Your task to perform on an android device: check storage Image 0: 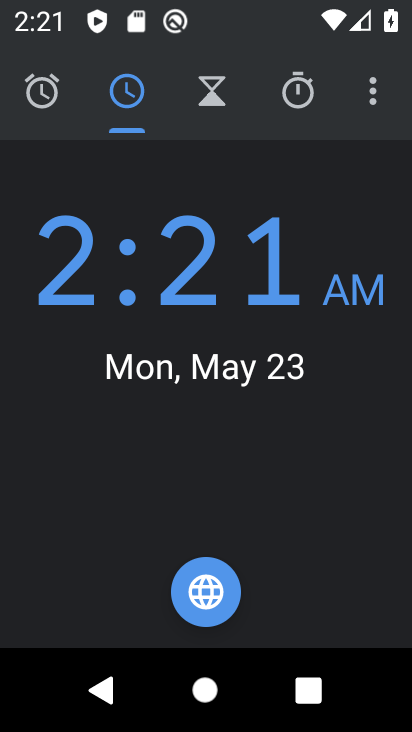
Step 0: press home button
Your task to perform on an android device: check storage Image 1: 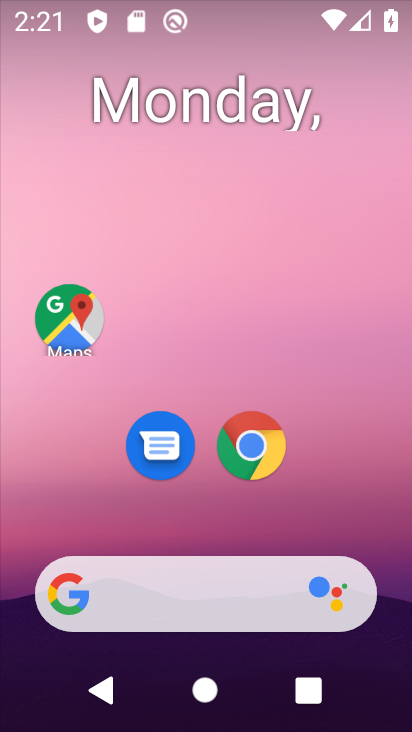
Step 1: drag from (173, 532) to (259, 12)
Your task to perform on an android device: check storage Image 2: 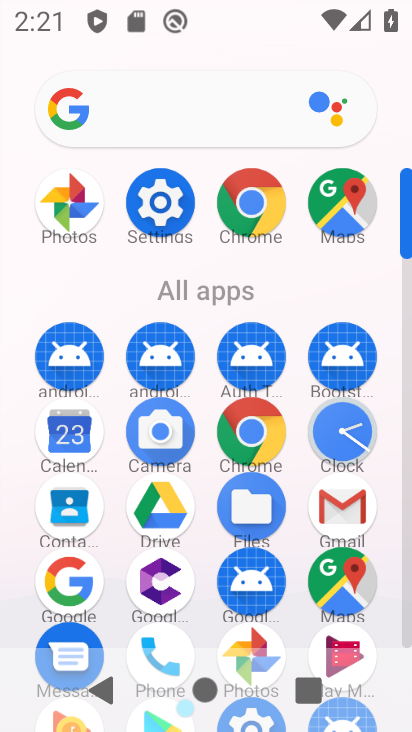
Step 2: click (154, 174)
Your task to perform on an android device: check storage Image 3: 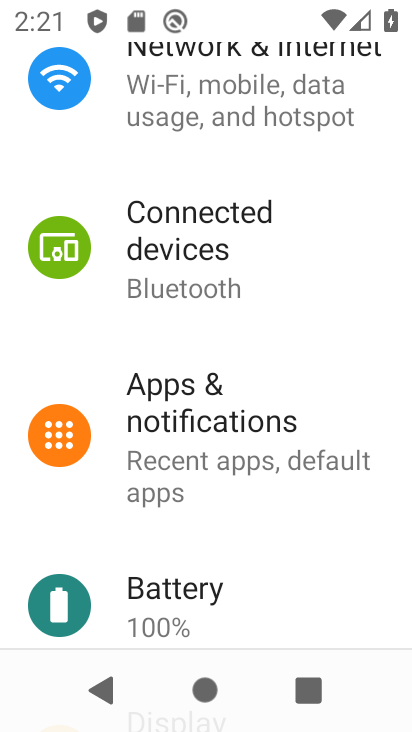
Step 3: drag from (39, 539) to (137, 69)
Your task to perform on an android device: check storage Image 4: 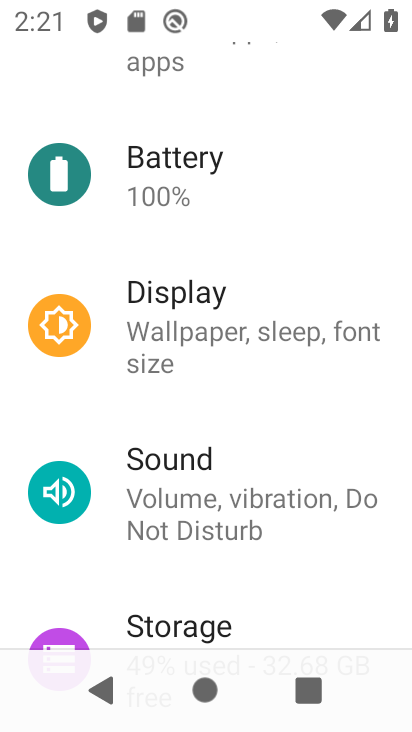
Step 4: click (125, 622)
Your task to perform on an android device: check storage Image 5: 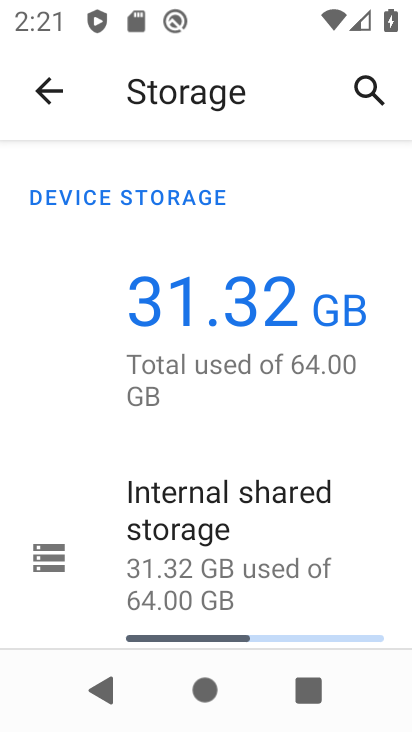
Step 5: task complete